Your task to perform on an android device: Open the phone app and click the voicemail tab. Image 0: 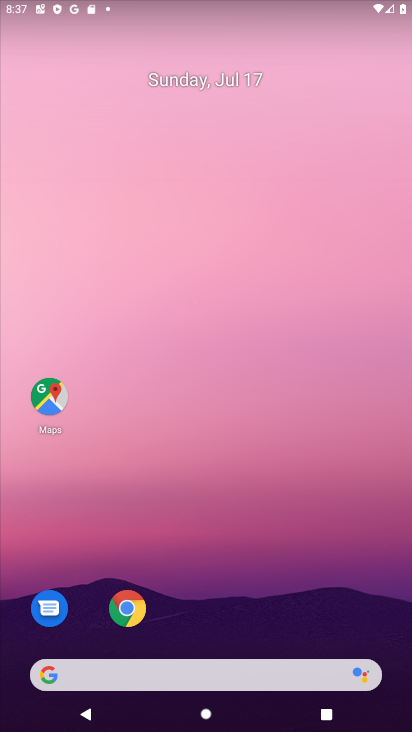
Step 0: drag from (148, 644) to (153, 362)
Your task to perform on an android device: Open the phone app and click the voicemail tab. Image 1: 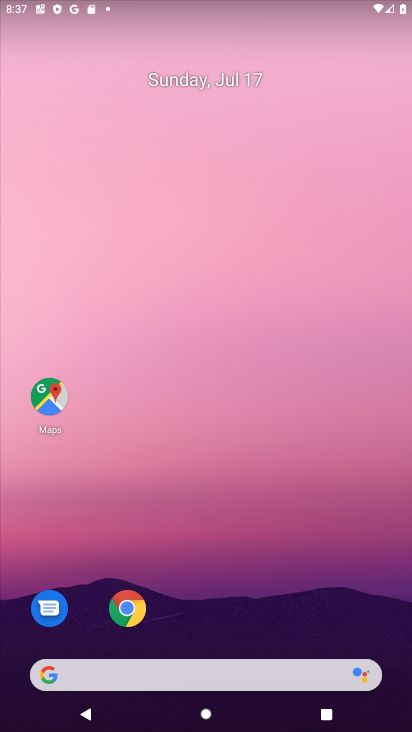
Step 1: drag from (246, 649) to (293, 294)
Your task to perform on an android device: Open the phone app and click the voicemail tab. Image 2: 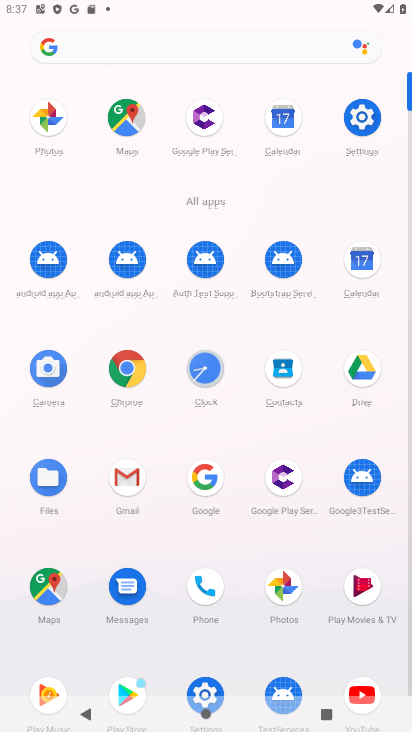
Step 2: click (212, 603)
Your task to perform on an android device: Open the phone app and click the voicemail tab. Image 3: 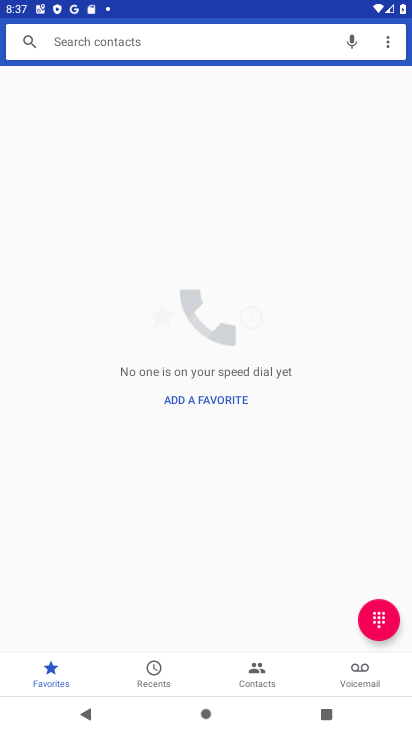
Step 3: click (356, 667)
Your task to perform on an android device: Open the phone app and click the voicemail tab. Image 4: 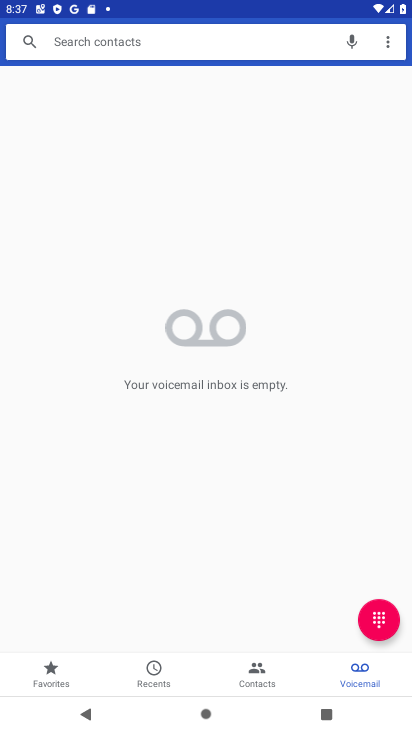
Step 4: task complete